Your task to perform on an android device: Go to Yahoo.com Image 0: 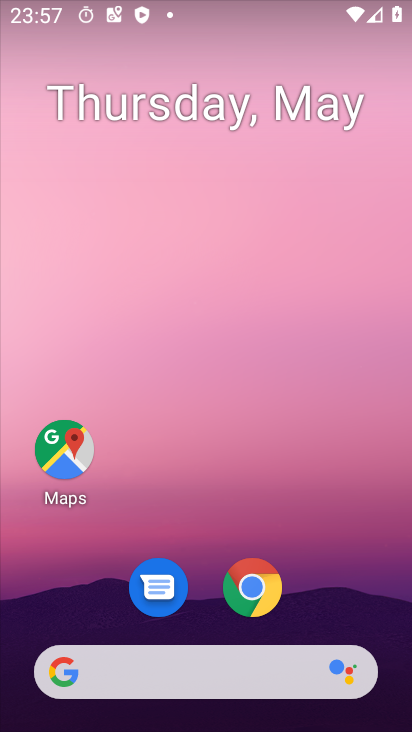
Step 0: click (251, 592)
Your task to perform on an android device: Go to Yahoo.com Image 1: 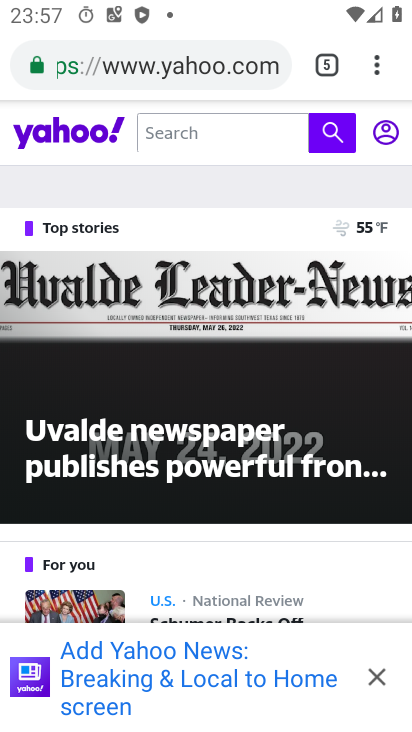
Step 1: task complete